Your task to perform on an android device: install app "Expedia: Hotels, Flights & Car" Image 0: 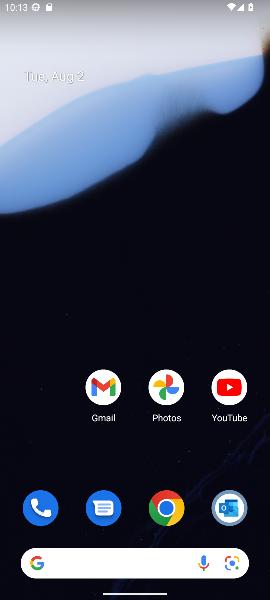
Step 0: drag from (92, 471) to (86, 35)
Your task to perform on an android device: install app "Expedia: Hotels, Flights & Car" Image 1: 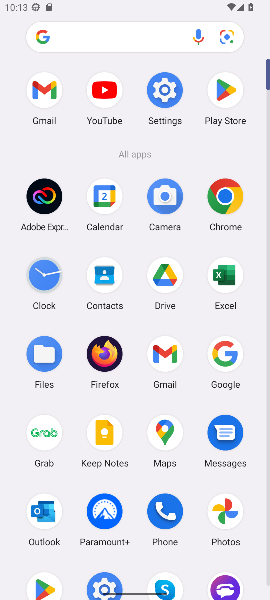
Step 1: click (228, 95)
Your task to perform on an android device: install app "Expedia: Hotels, Flights & Car" Image 2: 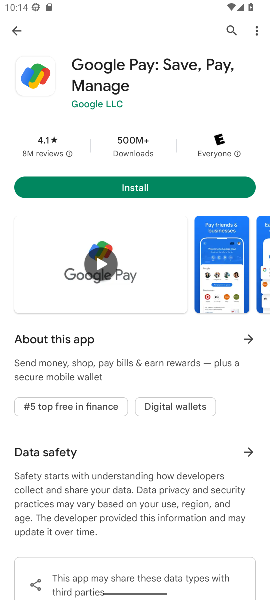
Step 2: click (233, 27)
Your task to perform on an android device: install app "Expedia: Hotels, Flights & Car" Image 3: 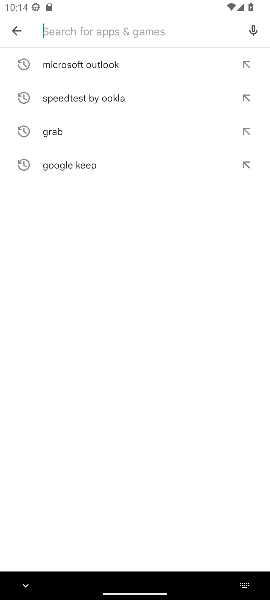
Step 3: type "Expedia: Hotels, Flights & Car"
Your task to perform on an android device: install app "Expedia: Hotels, Flights & Car" Image 4: 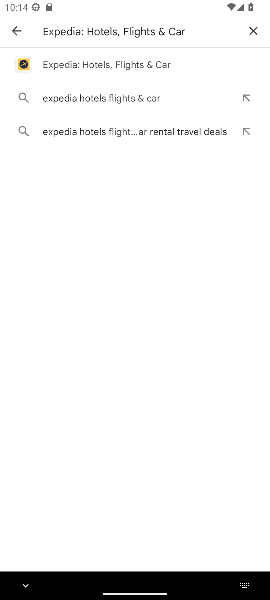
Step 4: click (153, 67)
Your task to perform on an android device: install app "Expedia: Hotels, Flights & Car" Image 5: 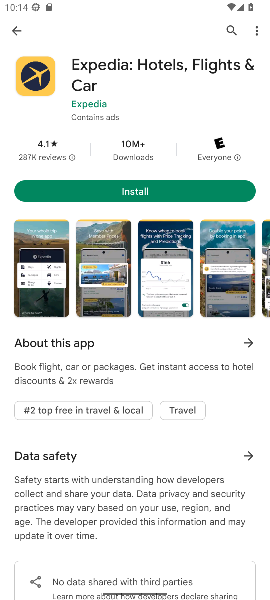
Step 5: click (135, 185)
Your task to perform on an android device: install app "Expedia: Hotels, Flights & Car" Image 6: 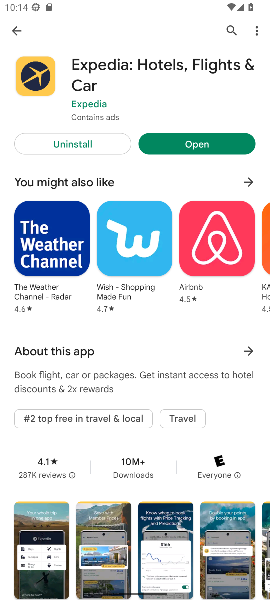
Step 6: task complete